Your task to perform on an android device: toggle notifications settings in the gmail app Image 0: 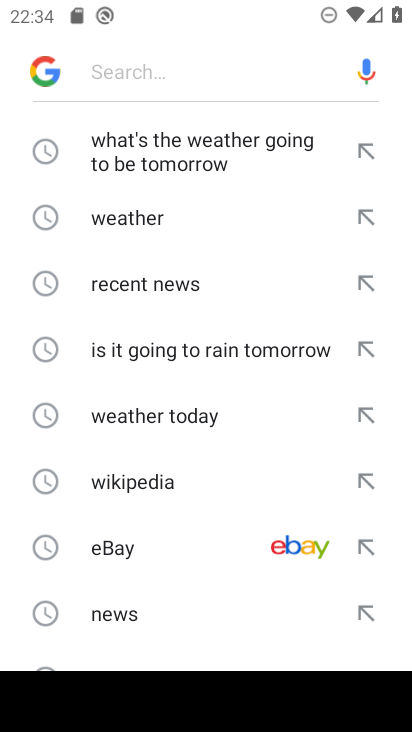
Step 0: press home button
Your task to perform on an android device: toggle notifications settings in the gmail app Image 1: 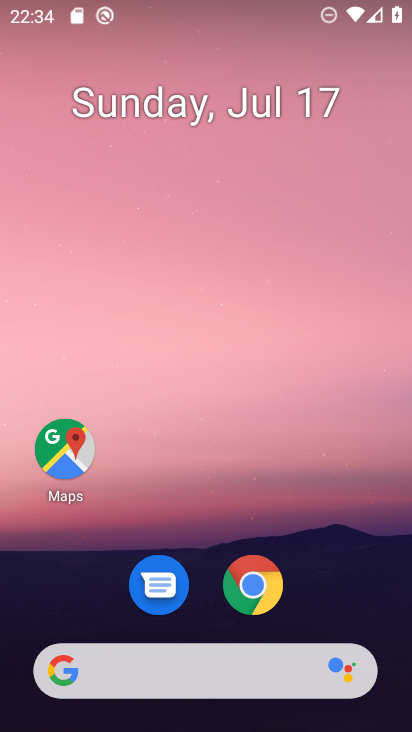
Step 1: drag from (205, 657) to (311, 101)
Your task to perform on an android device: toggle notifications settings in the gmail app Image 2: 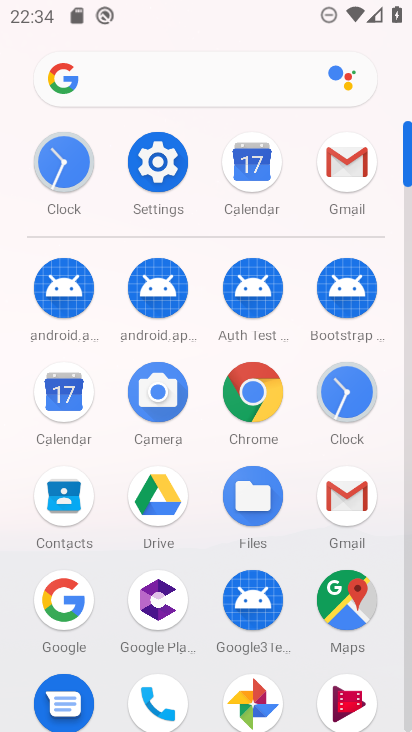
Step 2: click (350, 177)
Your task to perform on an android device: toggle notifications settings in the gmail app Image 3: 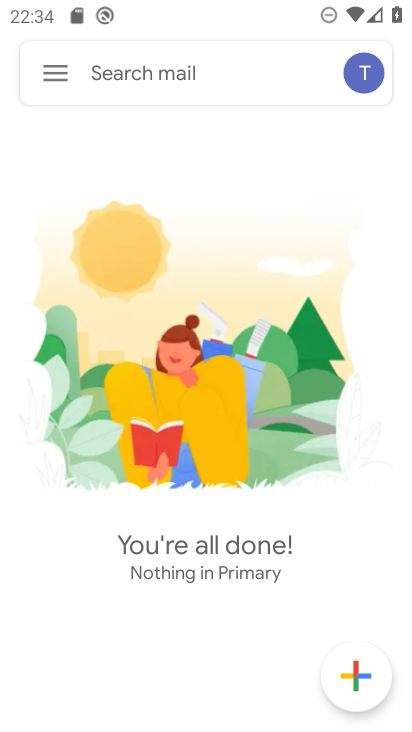
Step 3: click (60, 78)
Your task to perform on an android device: toggle notifications settings in the gmail app Image 4: 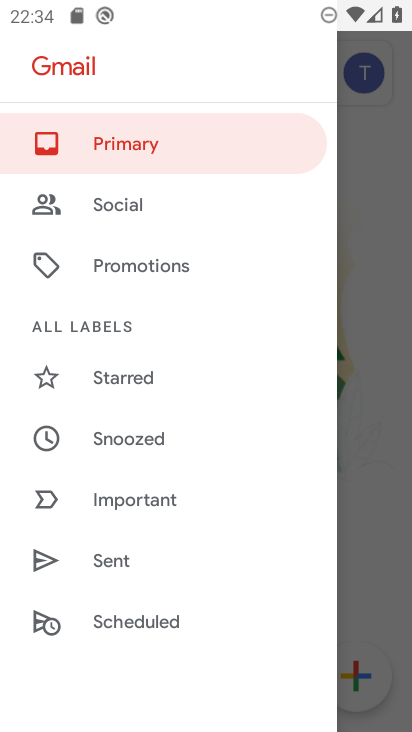
Step 4: drag from (189, 649) to (190, 143)
Your task to perform on an android device: toggle notifications settings in the gmail app Image 5: 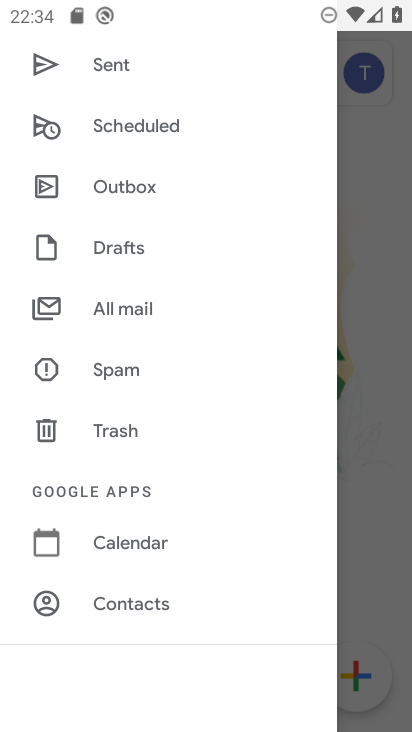
Step 5: drag from (192, 589) to (201, 170)
Your task to perform on an android device: toggle notifications settings in the gmail app Image 6: 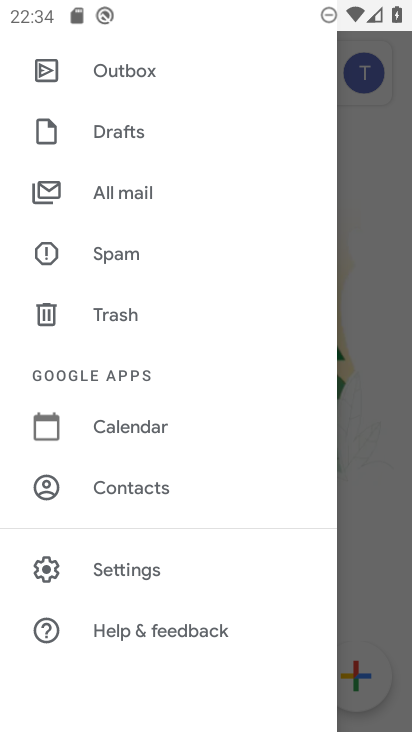
Step 6: click (137, 576)
Your task to perform on an android device: toggle notifications settings in the gmail app Image 7: 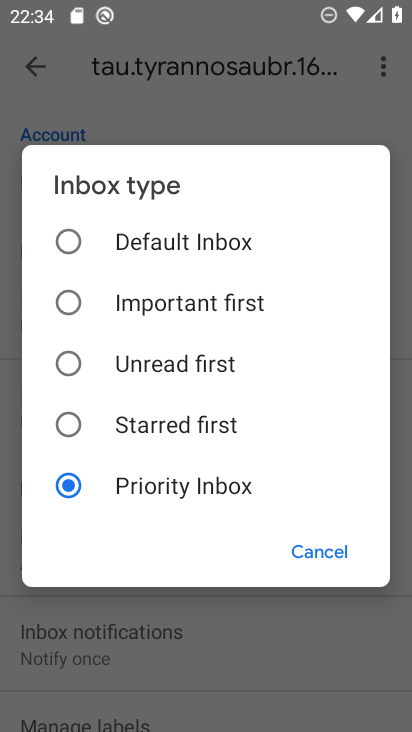
Step 7: click (307, 550)
Your task to perform on an android device: toggle notifications settings in the gmail app Image 8: 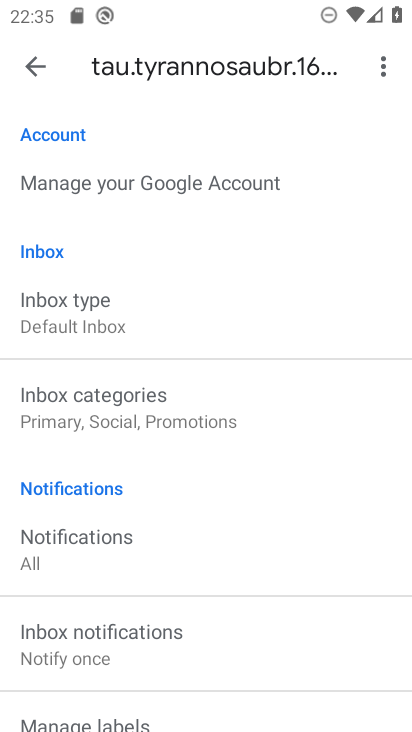
Step 8: click (72, 542)
Your task to perform on an android device: toggle notifications settings in the gmail app Image 9: 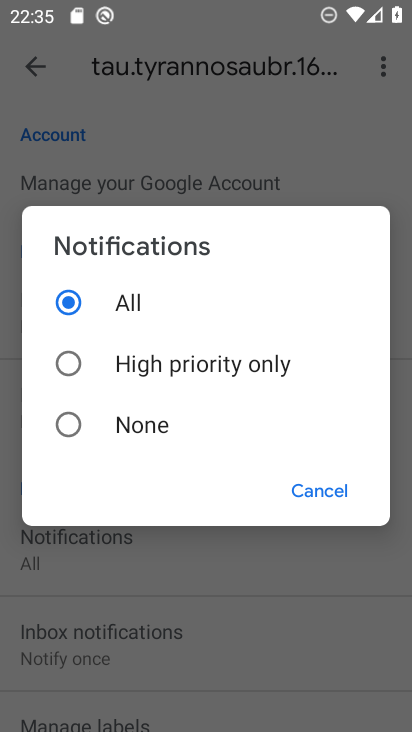
Step 9: click (59, 423)
Your task to perform on an android device: toggle notifications settings in the gmail app Image 10: 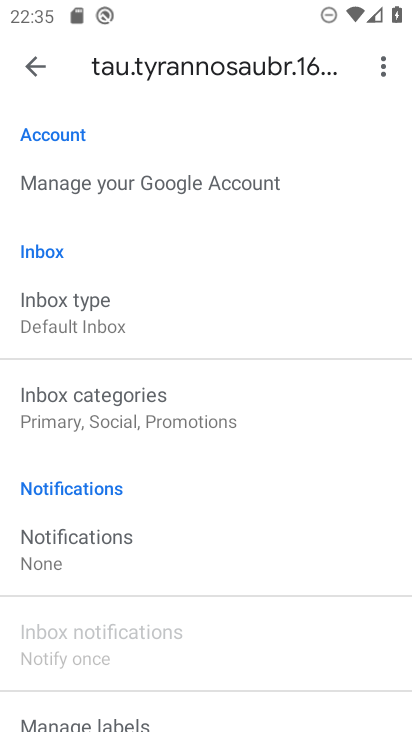
Step 10: task complete